Your task to perform on an android device: toggle translation in the chrome app Image 0: 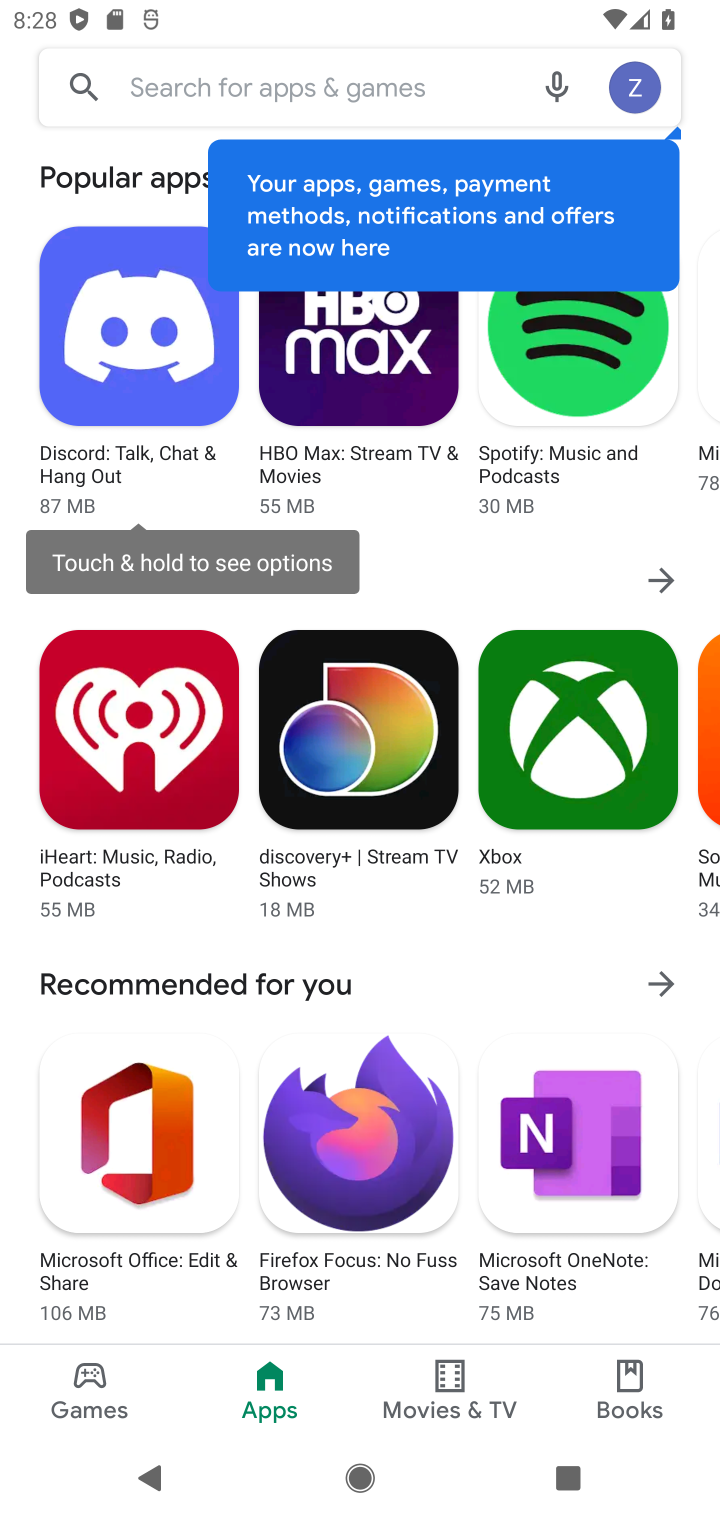
Step 0: drag from (399, 580) to (453, 1213)
Your task to perform on an android device: toggle translation in the chrome app Image 1: 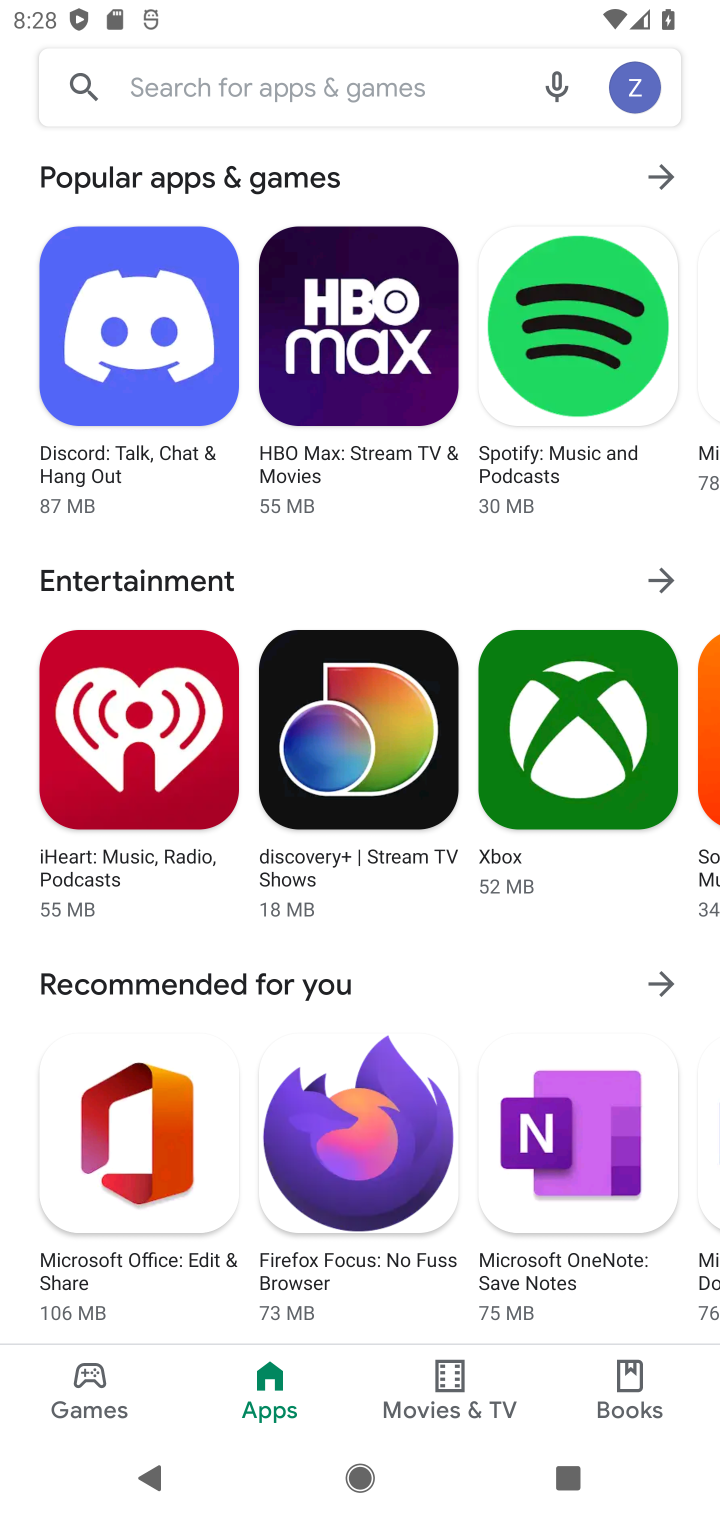
Step 1: press home button
Your task to perform on an android device: toggle translation in the chrome app Image 2: 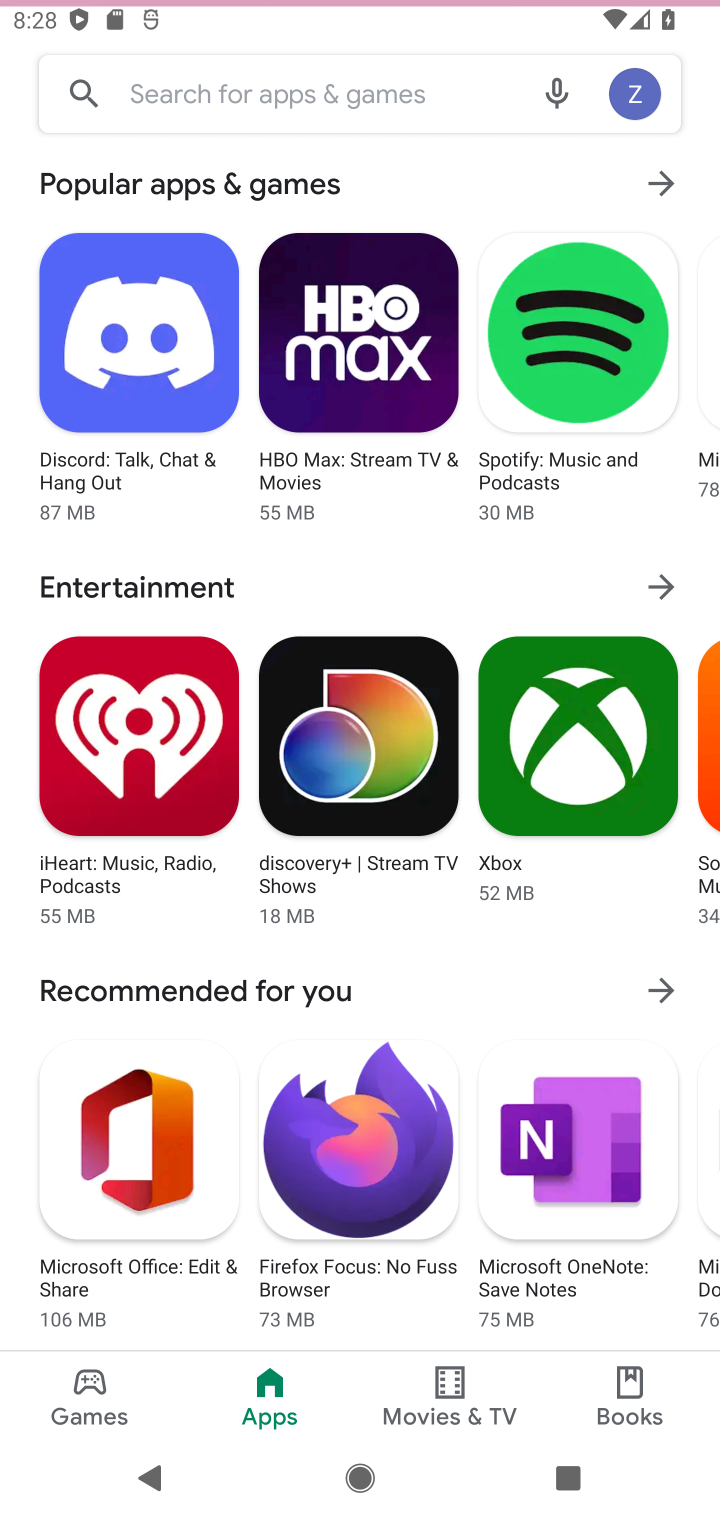
Step 2: drag from (363, 822) to (400, 501)
Your task to perform on an android device: toggle translation in the chrome app Image 3: 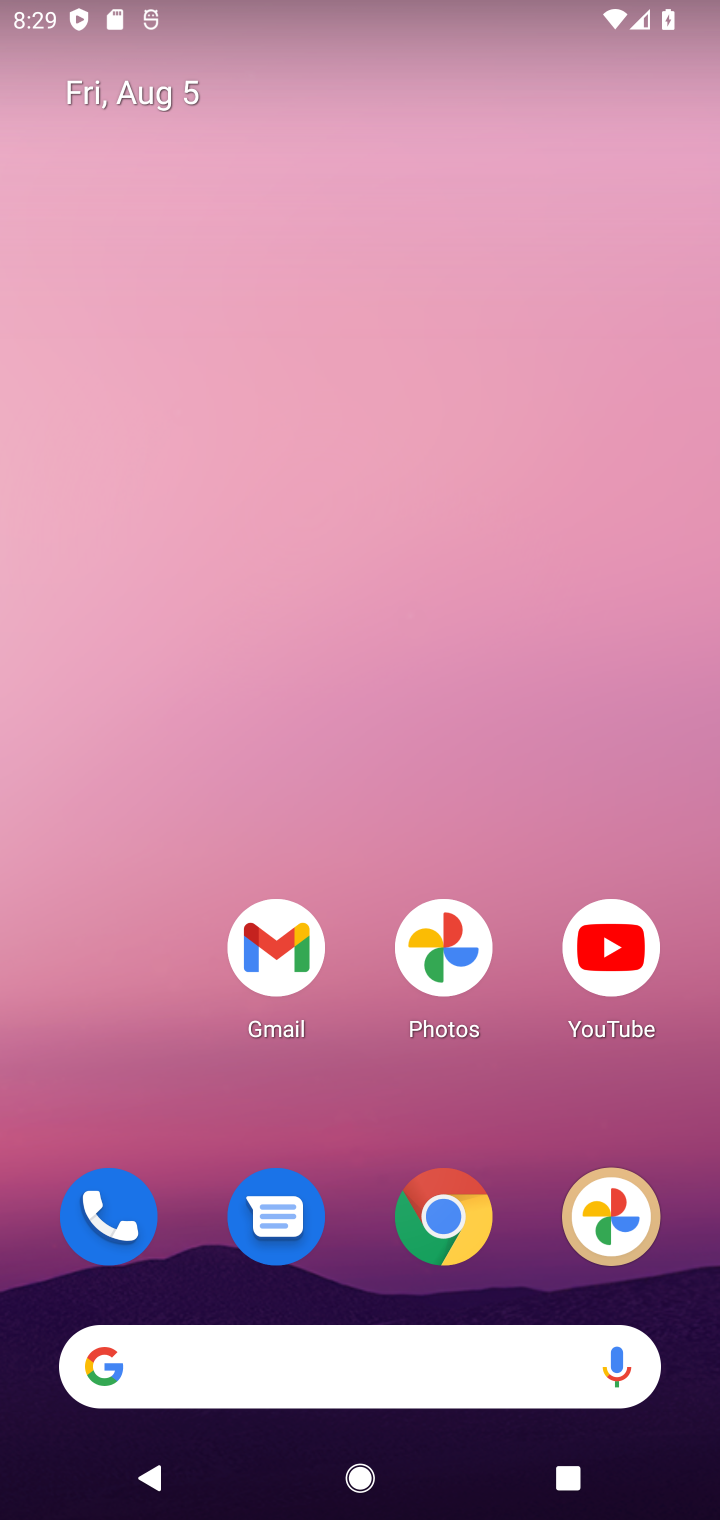
Step 3: drag from (360, 1022) to (427, 292)
Your task to perform on an android device: toggle translation in the chrome app Image 4: 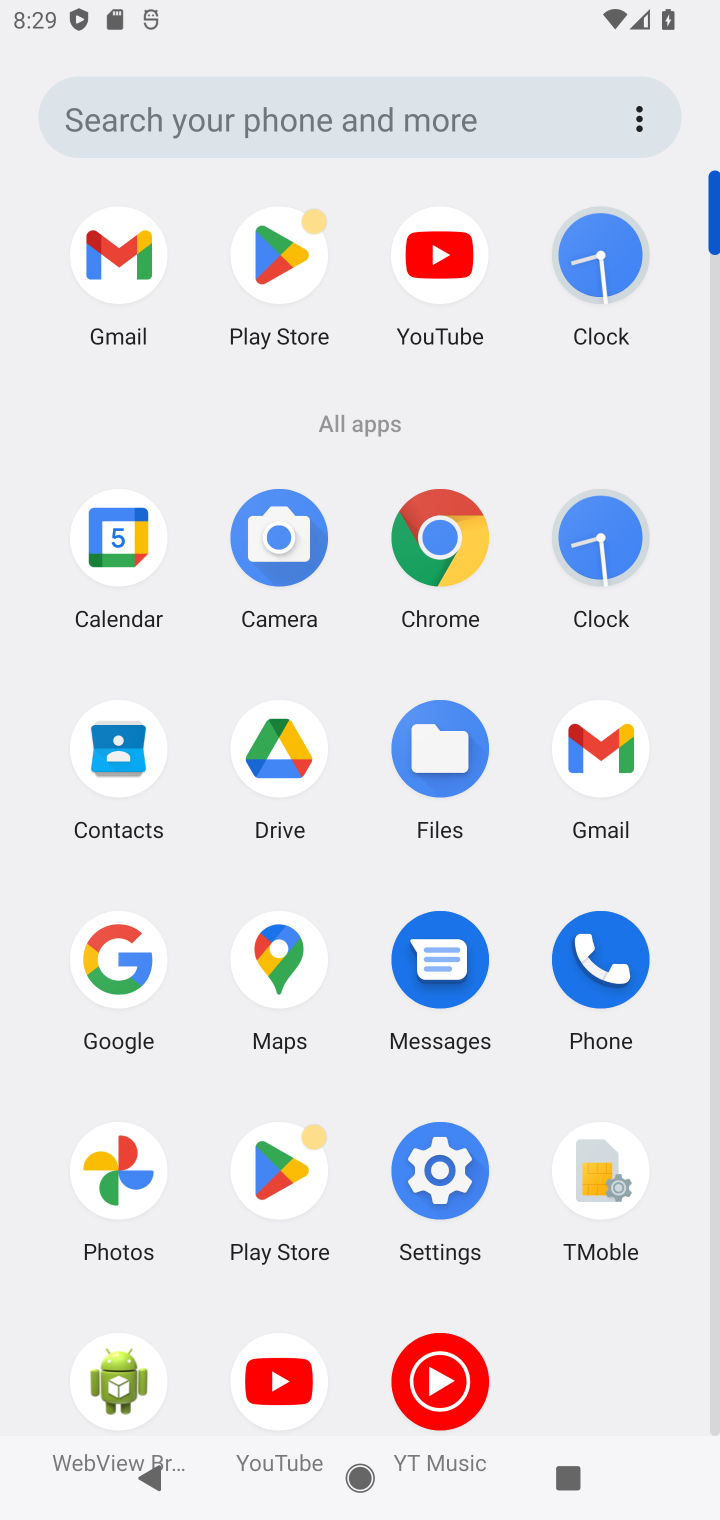
Step 4: click (419, 535)
Your task to perform on an android device: toggle translation in the chrome app Image 5: 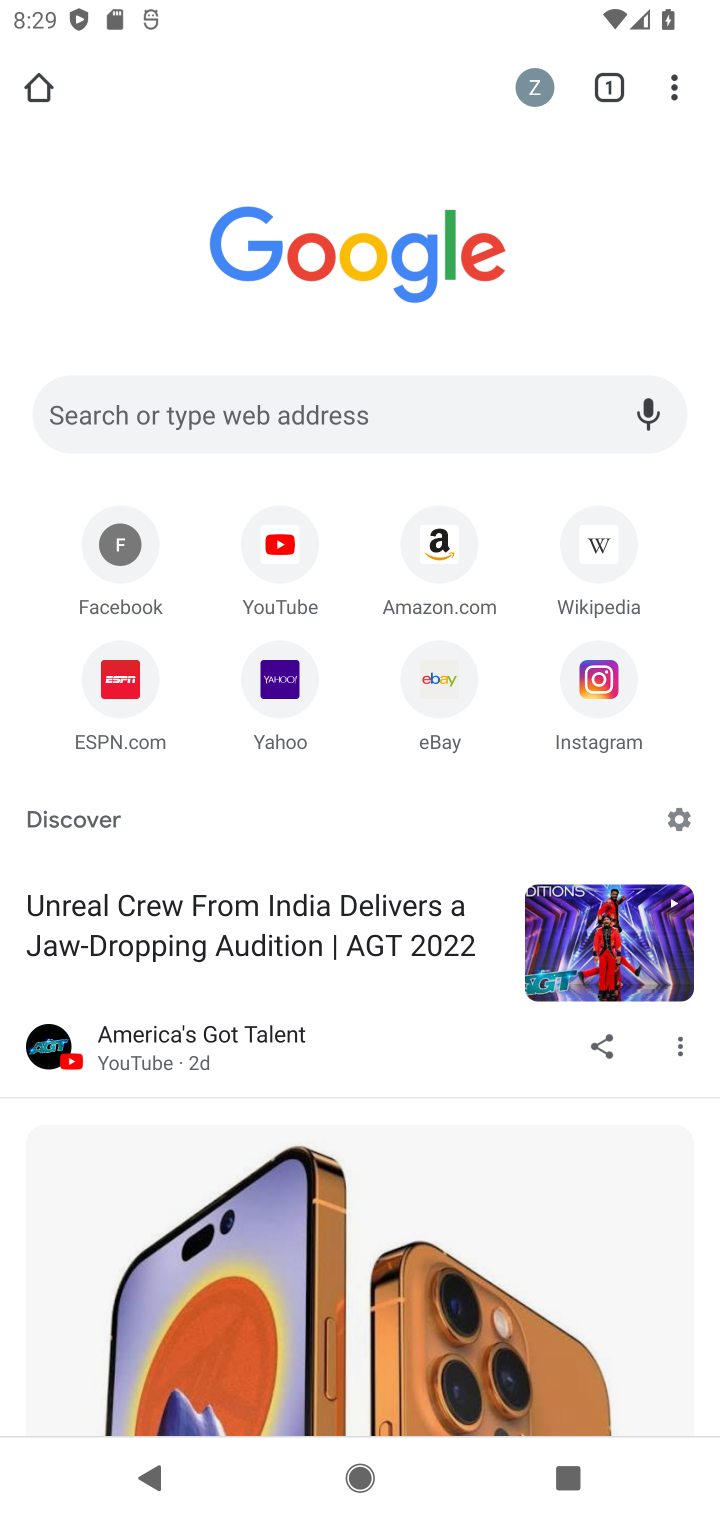
Step 5: drag from (666, 114) to (435, 880)
Your task to perform on an android device: toggle translation in the chrome app Image 6: 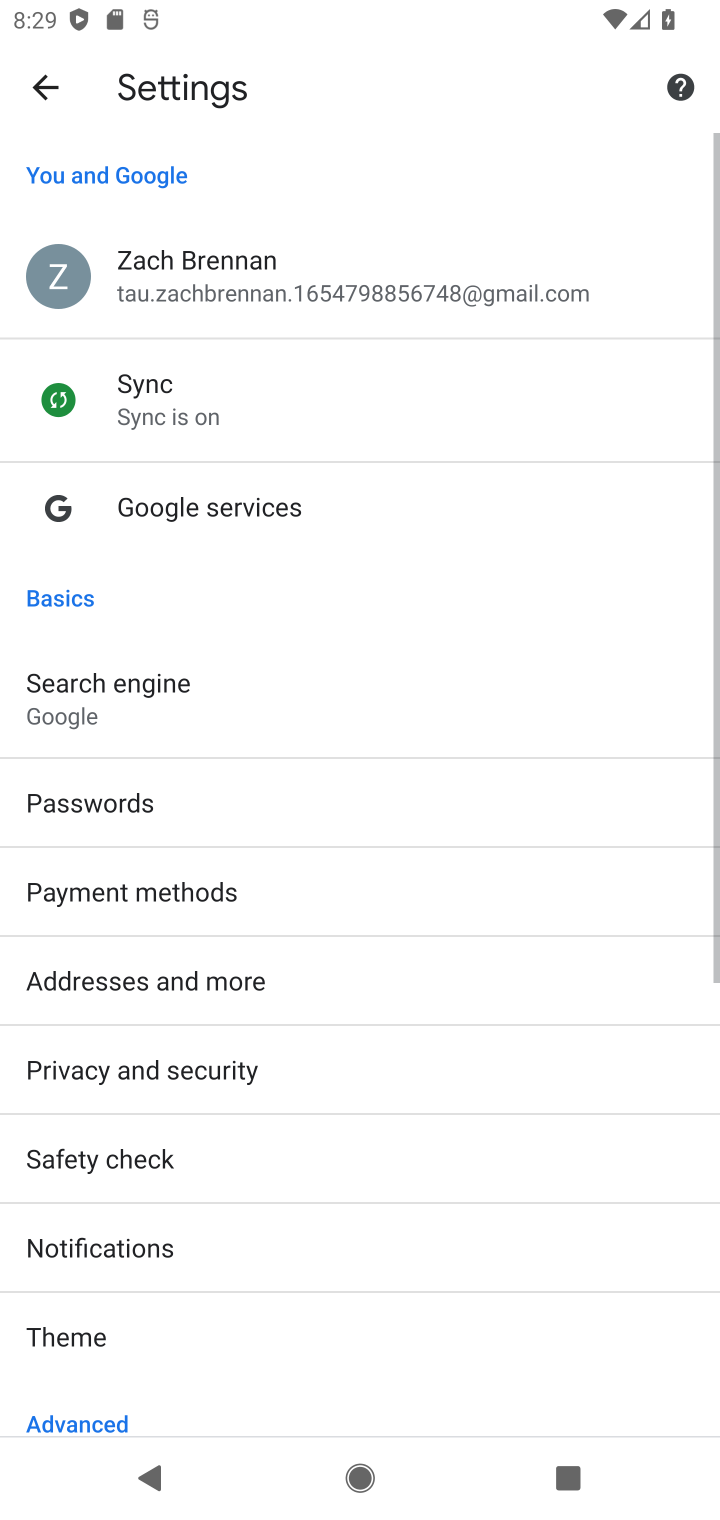
Step 6: drag from (252, 1223) to (387, 567)
Your task to perform on an android device: toggle translation in the chrome app Image 7: 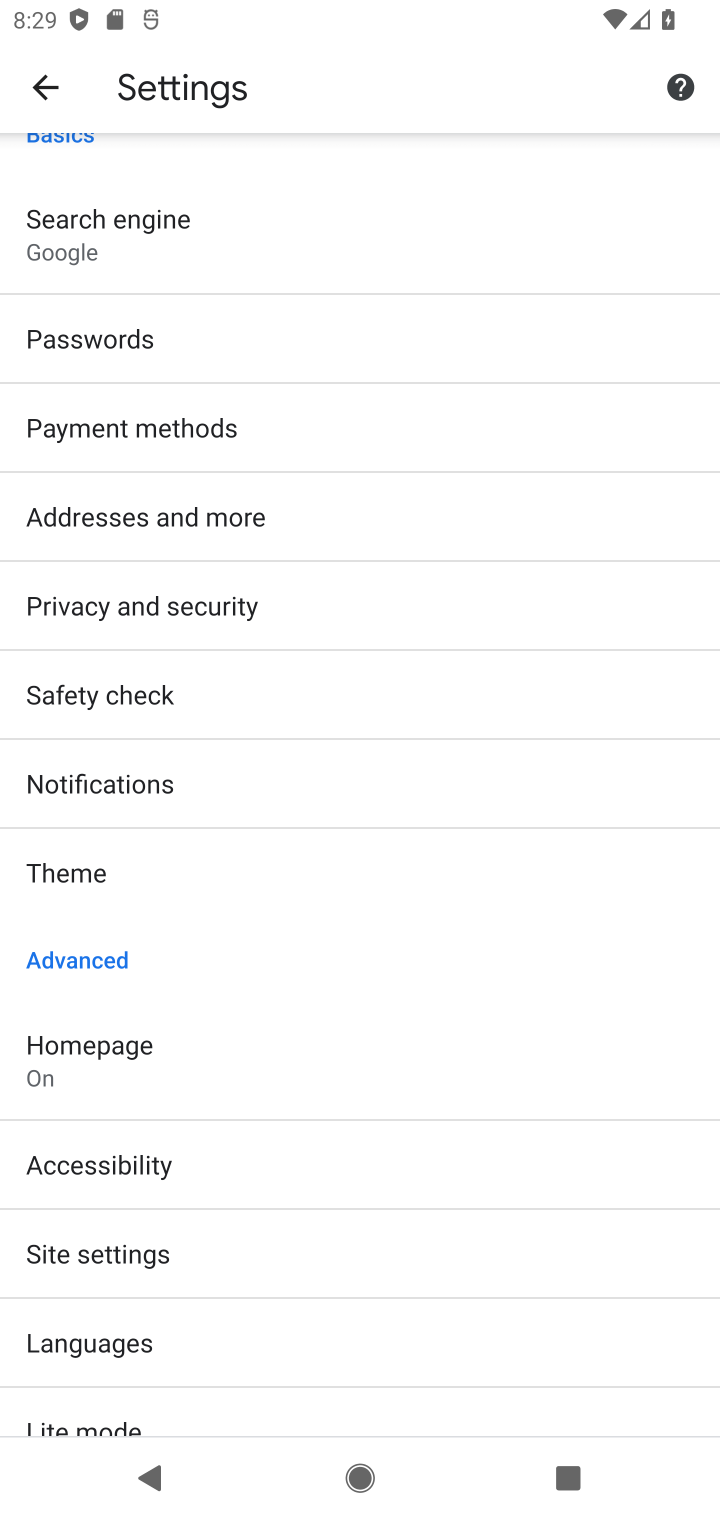
Step 7: click (231, 1259)
Your task to perform on an android device: toggle translation in the chrome app Image 8: 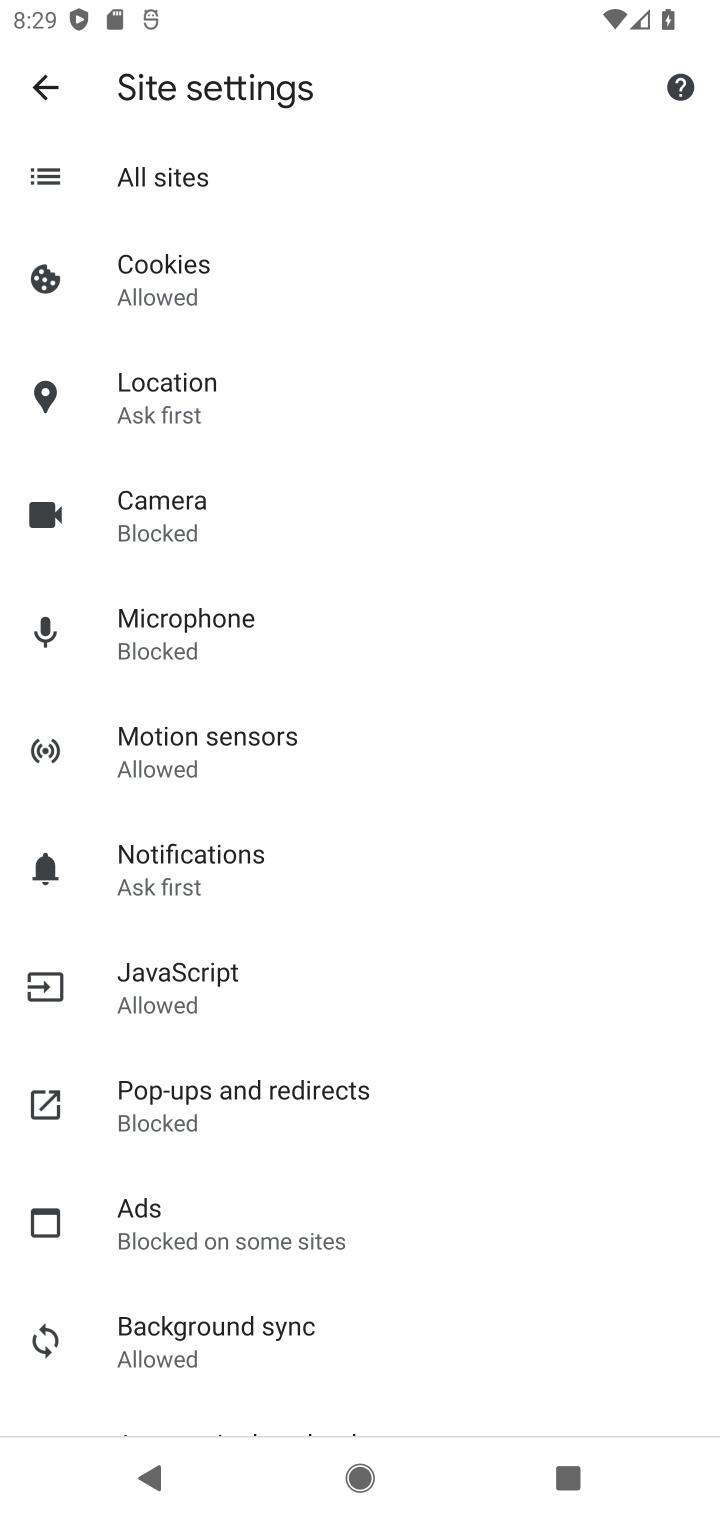
Step 8: click (21, 87)
Your task to perform on an android device: toggle translation in the chrome app Image 9: 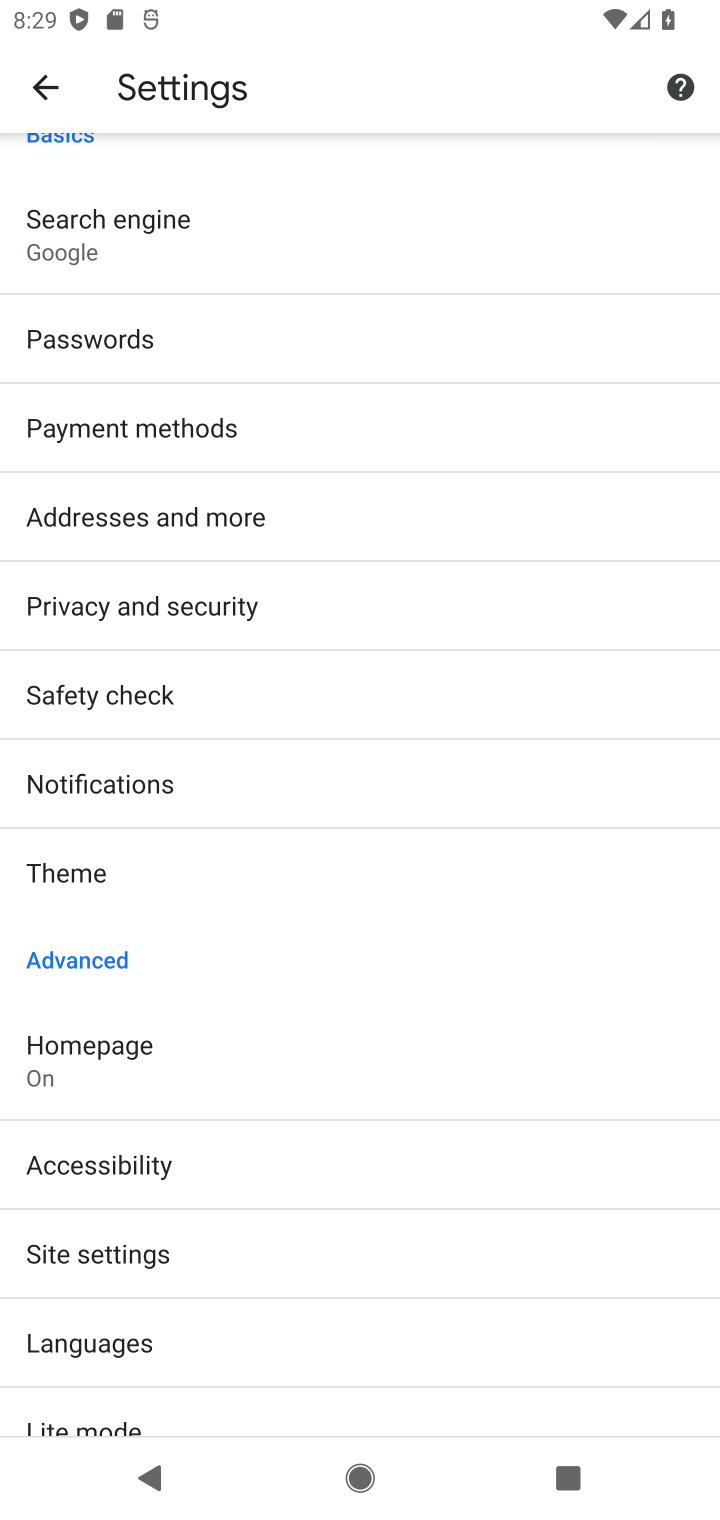
Step 9: click (220, 1311)
Your task to perform on an android device: toggle translation in the chrome app Image 10: 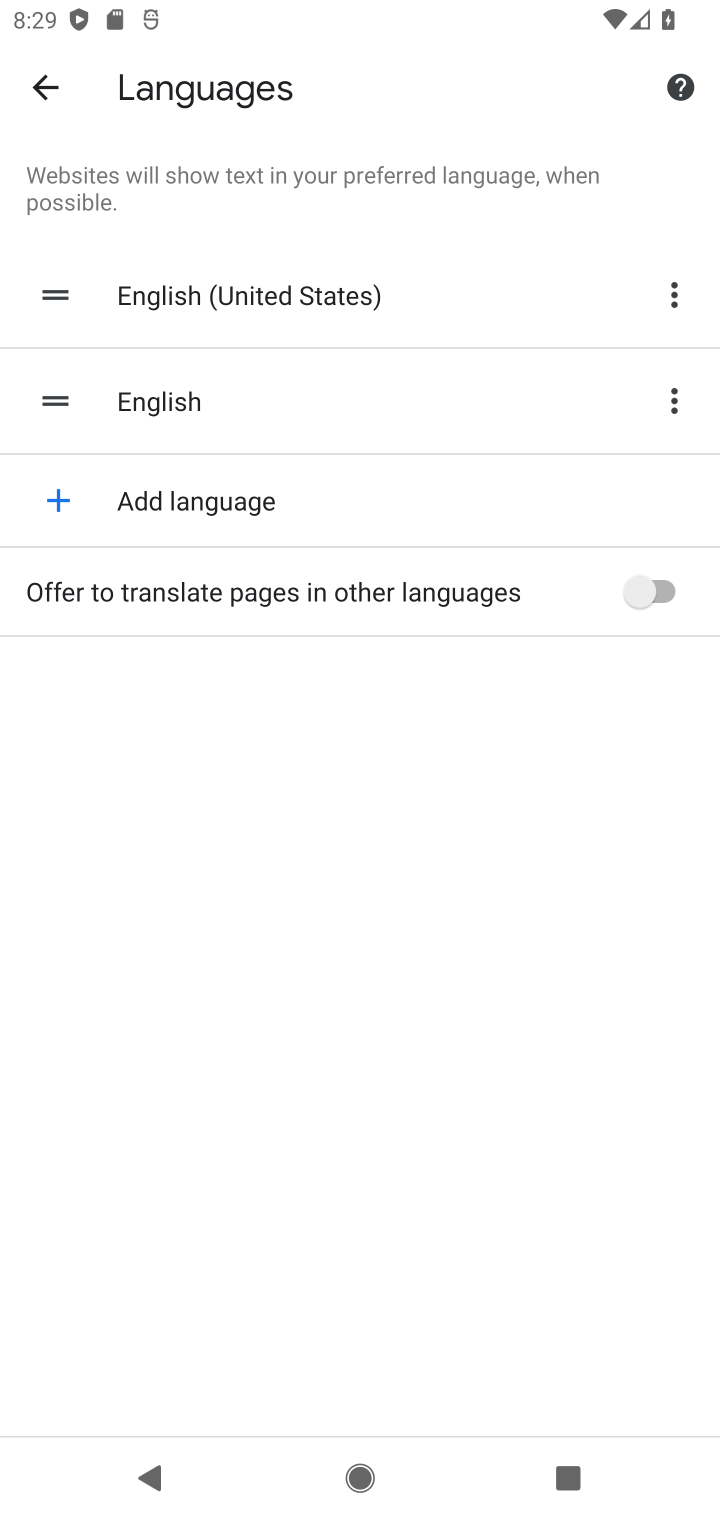
Step 10: click (526, 584)
Your task to perform on an android device: toggle translation in the chrome app Image 11: 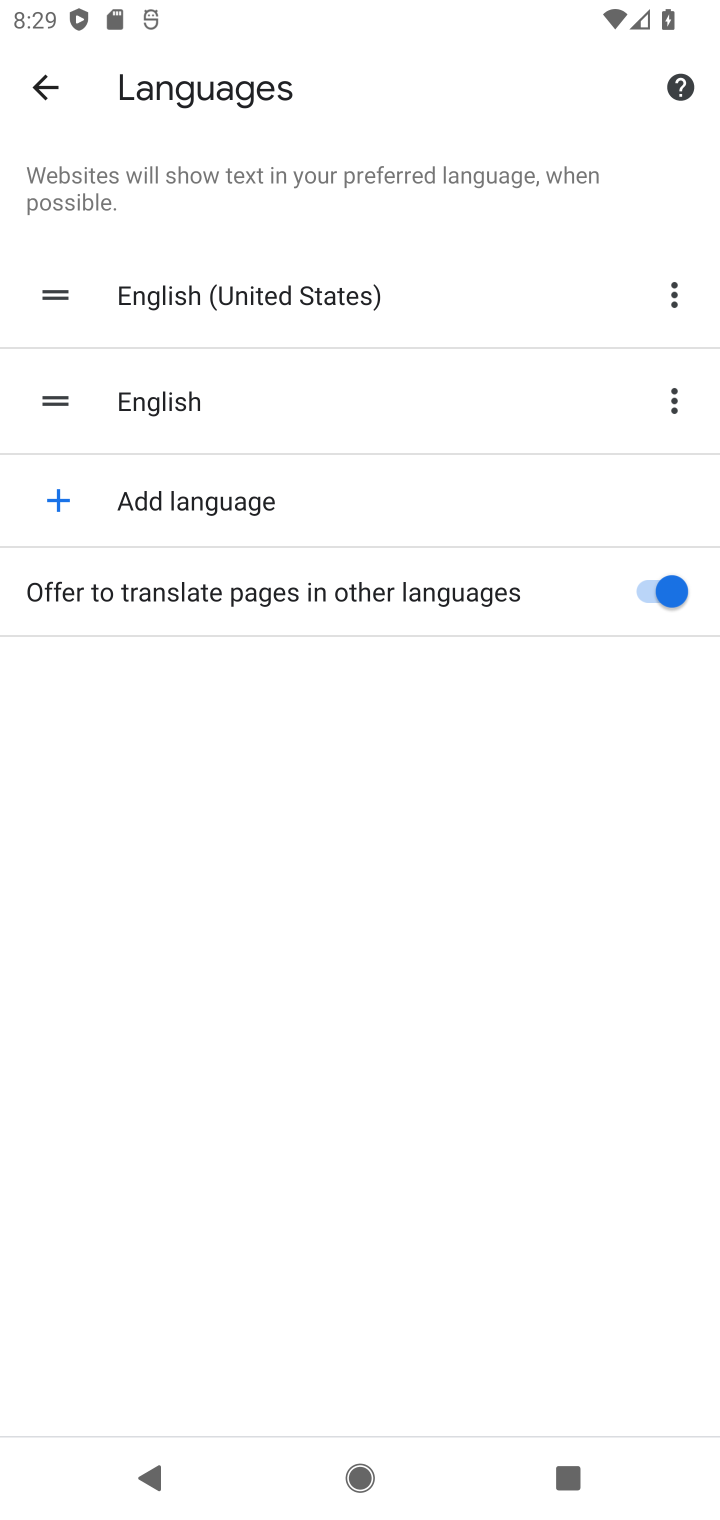
Step 11: task complete